Your task to perform on an android device: make emails show in primary in the gmail app Image 0: 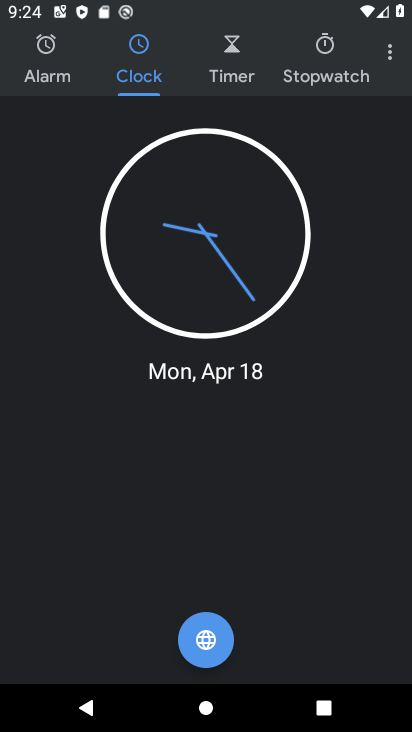
Step 0: press home button
Your task to perform on an android device: make emails show in primary in the gmail app Image 1: 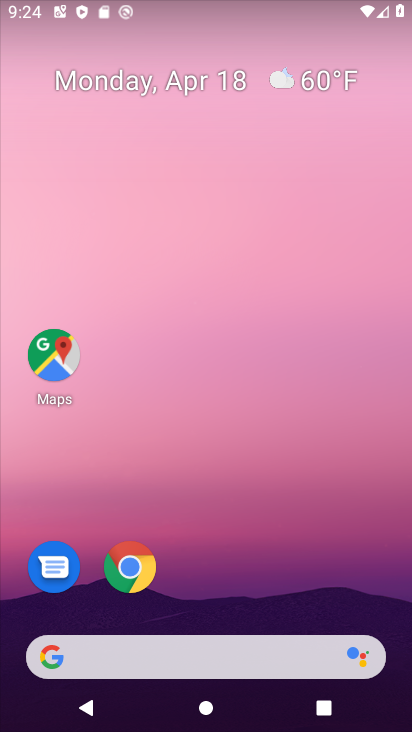
Step 1: drag from (195, 562) to (276, 59)
Your task to perform on an android device: make emails show in primary in the gmail app Image 2: 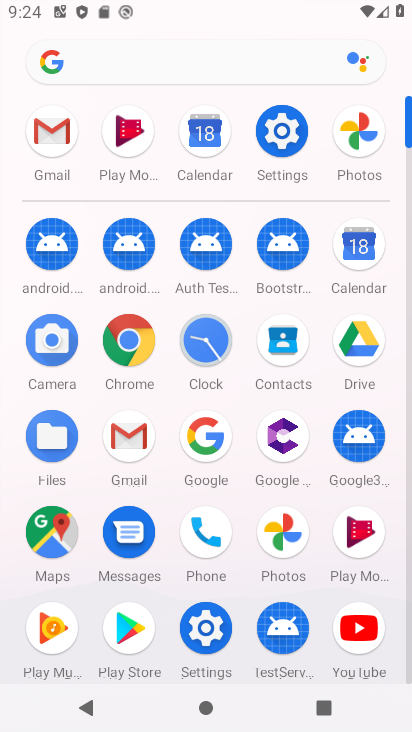
Step 2: click (120, 435)
Your task to perform on an android device: make emails show in primary in the gmail app Image 3: 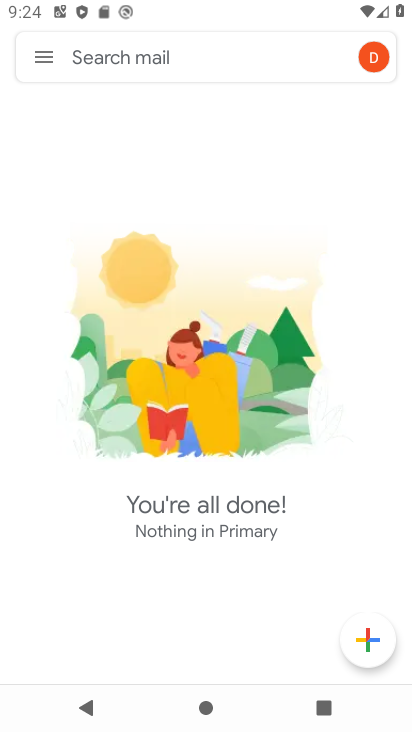
Step 3: click (38, 57)
Your task to perform on an android device: make emails show in primary in the gmail app Image 4: 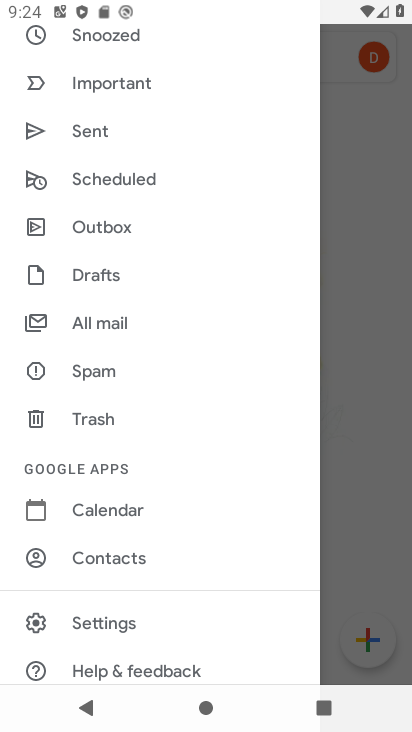
Step 4: drag from (172, 142) to (162, 440)
Your task to perform on an android device: make emails show in primary in the gmail app Image 5: 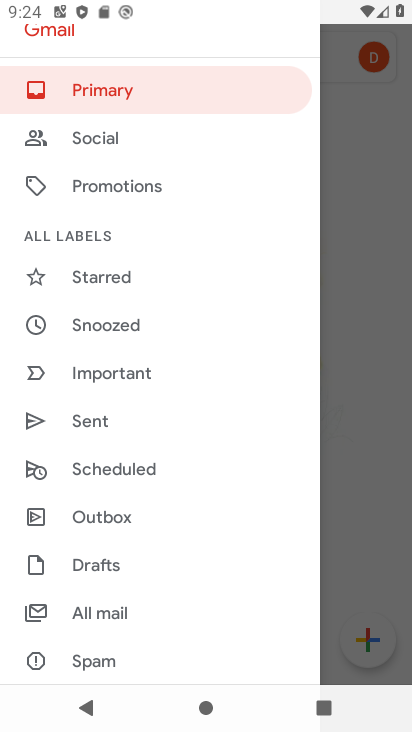
Step 5: click (129, 97)
Your task to perform on an android device: make emails show in primary in the gmail app Image 6: 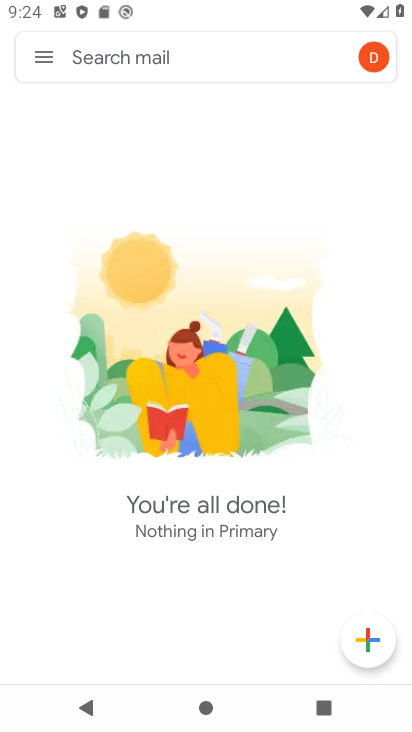
Step 6: task complete